Your task to perform on an android device: find which apps use the phone's location Image 0: 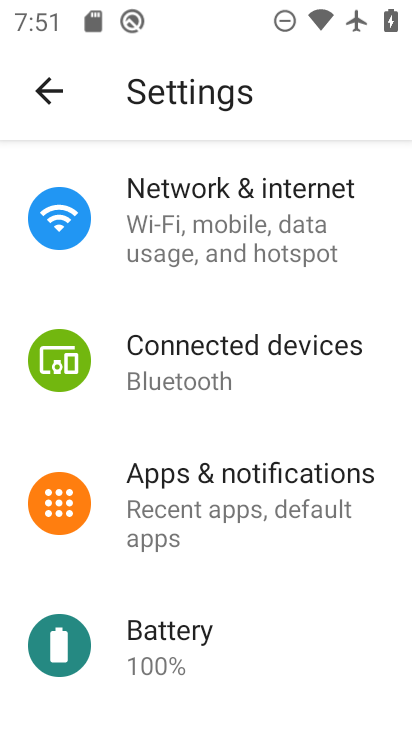
Step 0: drag from (265, 556) to (243, 342)
Your task to perform on an android device: find which apps use the phone's location Image 1: 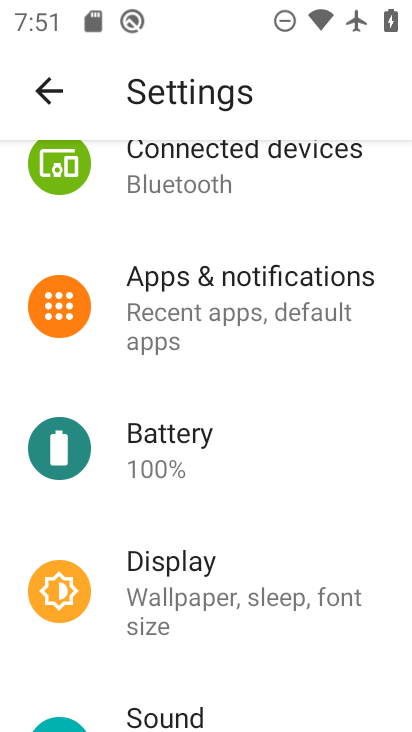
Step 1: drag from (187, 643) to (187, 351)
Your task to perform on an android device: find which apps use the phone's location Image 2: 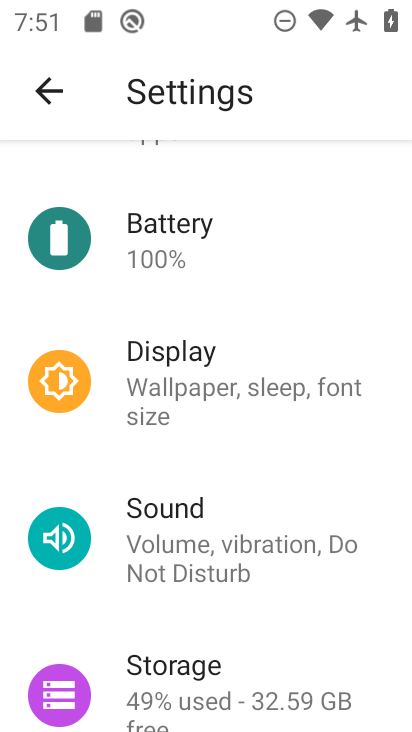
Step 2: drag from (205, 607) to (171, 394)
Your task to perform on an android device: find which apps use the phone's location Image 3: 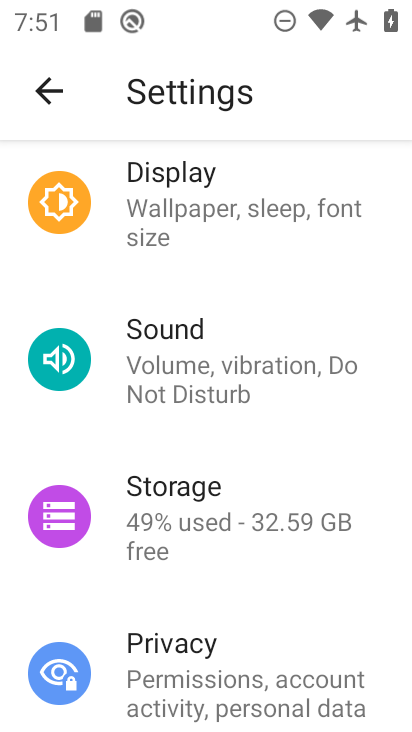
Step 3: drag from (187, 578) to (218, 346)
Your task to perform on an android device: find which apps use the phone's location Image 4: 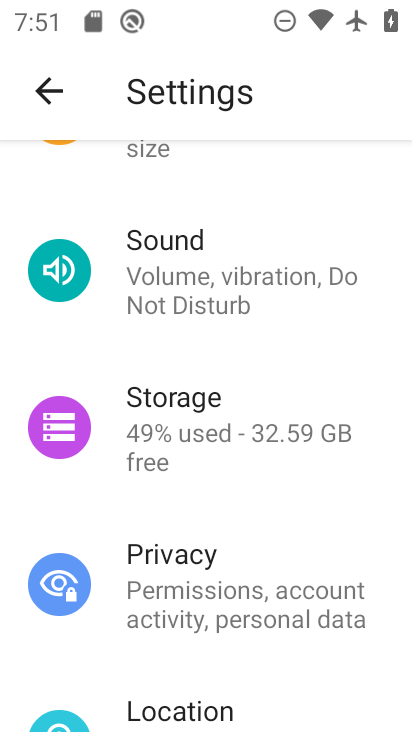
Step 4: drag from (166, 509) to (181, 296)
Your task to perform on an android device: find which apps use the phone's location Image 5: 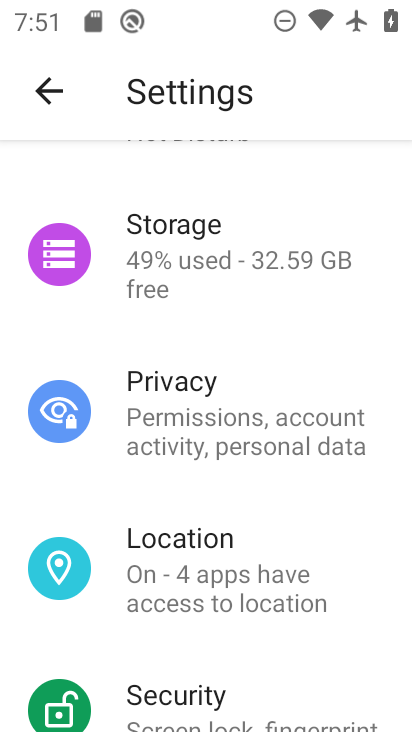
Step 5: click (161, 533)
Your task to perform on an android device: find which apps use the phone's location Image 6: 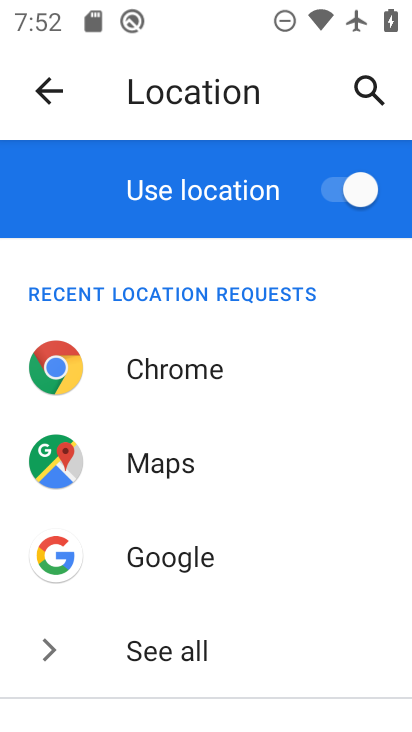
Step 6: task complete